Your task to perform on an android device: What's the weather? Image 0: 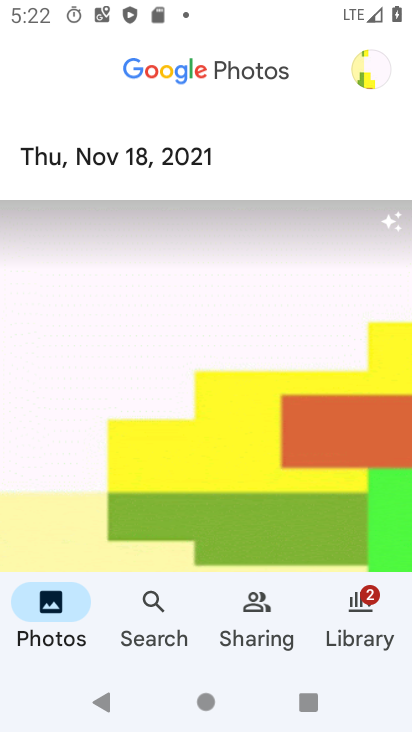
Step 0: press home button
Your task to perform on an android device: What's the weather? Image 1: 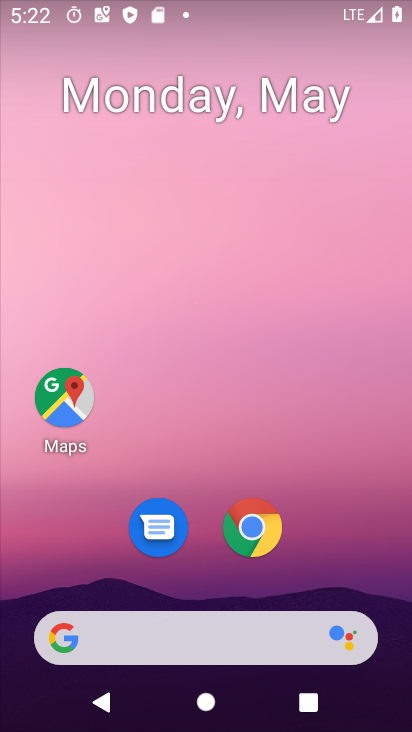
Step 1: drag from (0, 268) to (395, 231)
Your task to perform on an android device: What's the weather? Image 2: 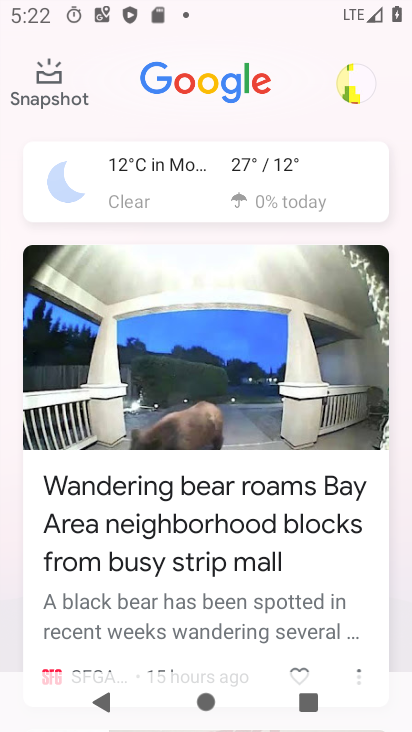
Step 2: click (257, 161)
Your task to perform on an android device: What's the weather? Image 3: 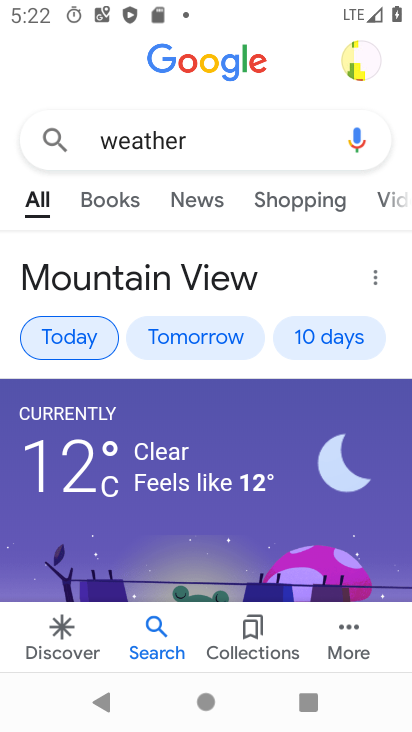
Step 3: click (89, 340)
Your task to perform on an android device: What's the weather? Image 4: 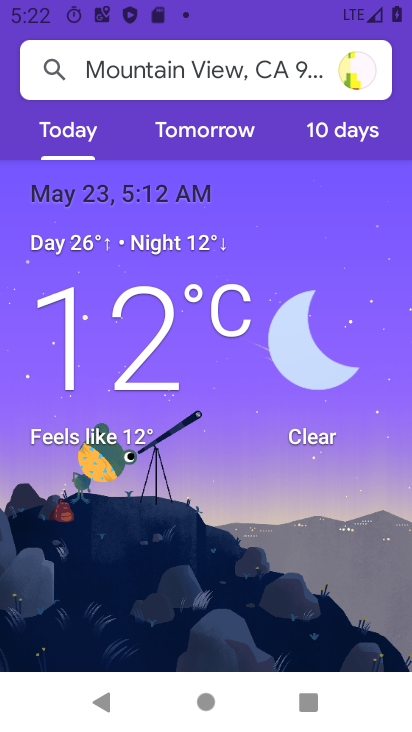
Step 4: task complete